Your task to perform on an android device: toggle improve location accuracy Image 0: 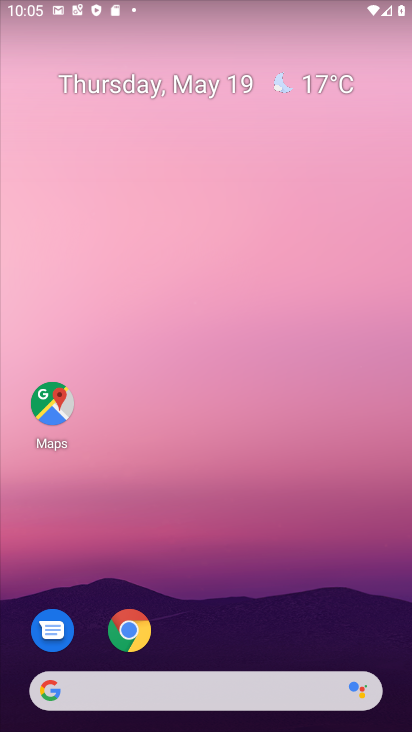
Step 0: drag from (272, 546) to (272, 24)
Your task to perform on an android device: toggle improve location accuracy Image 1: 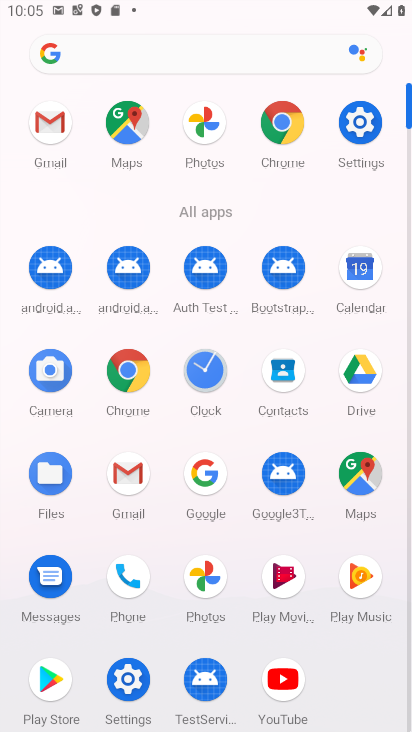
Step 1: click (364, 121)
Your task to perform on an android device: toggle improve location accuracy Image 2: 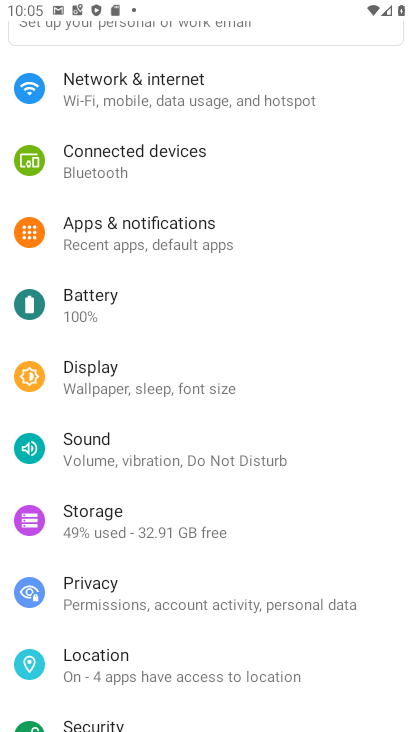
Step 2: click (100, 649)
Your task to perform on an android device: toggle improve location accuracy Image 3: 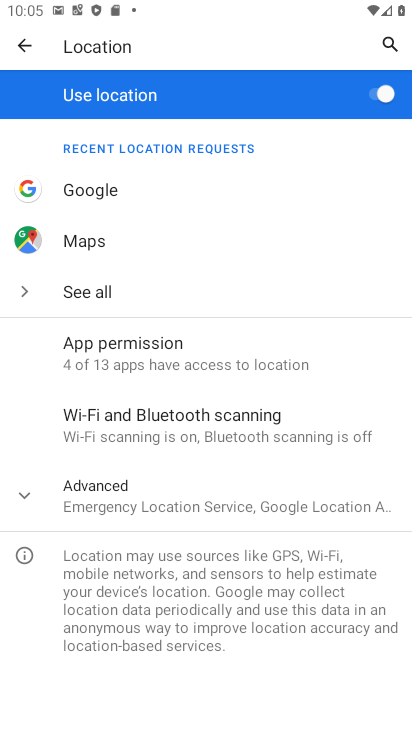
Step 3: click (30, 488)
Your task to perform on an android device: toggle improve location accuracy Image 4: 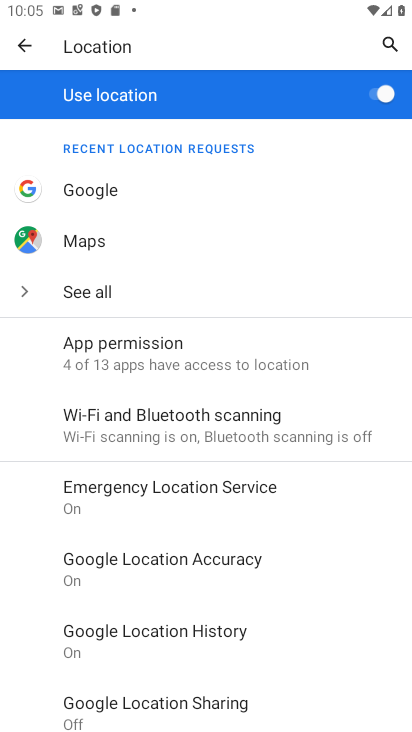
Step 4: click (192, 570)
Your task to perform on an android device: toggle improve location accuracy Image 5: 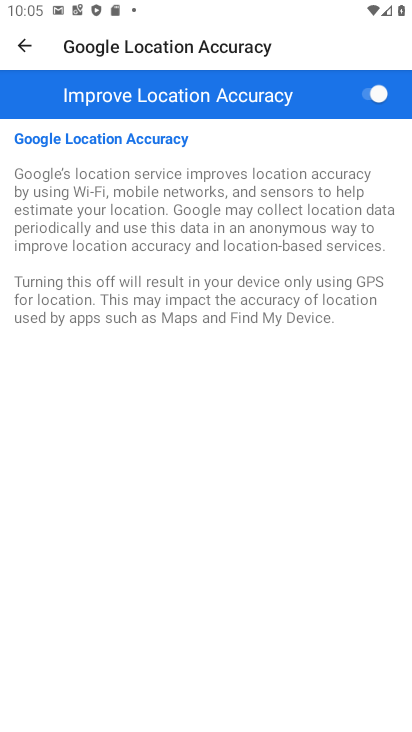
Step 5: click (378, 96)
Your task to perform on an android device: toggle improve location accuracy Image 6: 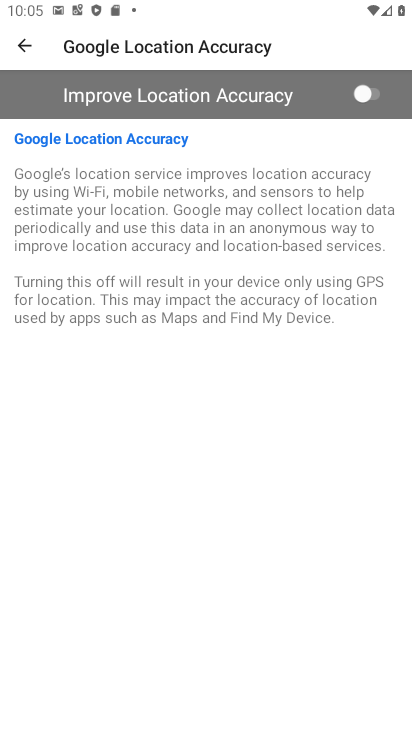
Step 6: task complete